Your task to perform on an android device: Open eBay Image 0: 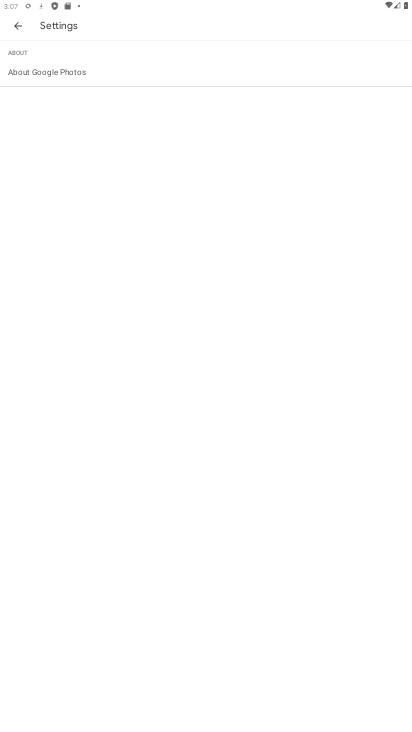
Step 0: press home button
Your task to perform on an android device: Open eBay Image 1: 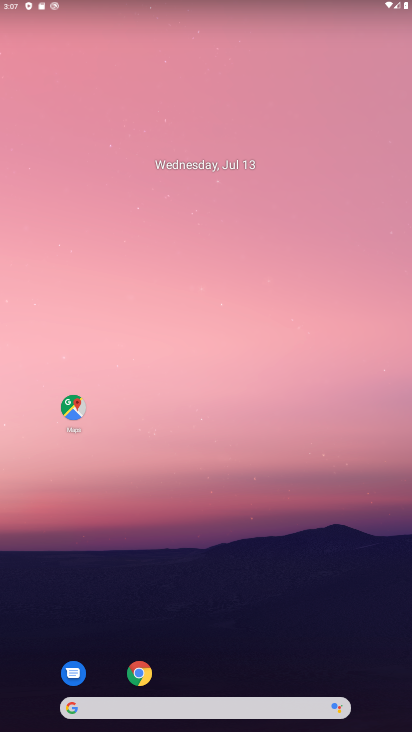
Step 1: drag from (221, 663) to (221, 188)
Your task to perform on an android device: Open eBay Image 2: 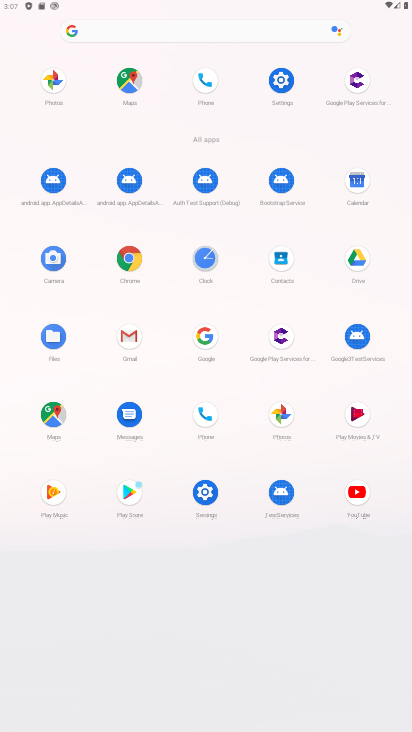
Step 2: click (131, 261)
Your task to perform on an android device: Open eBay Image 3: 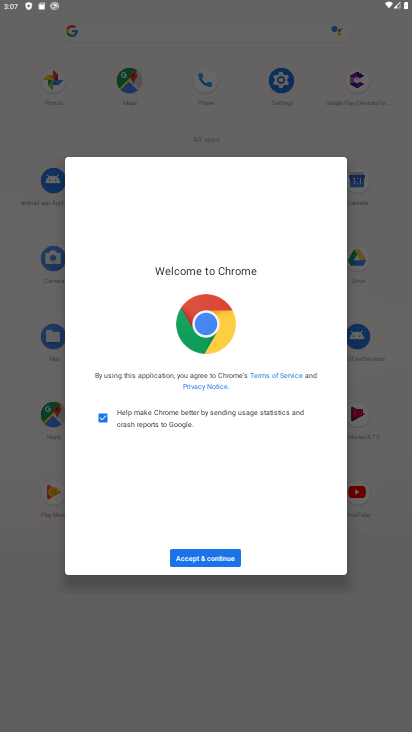
Step 3: click (205, 555)
Your task to perform on an android device: Open eBay Image 4: 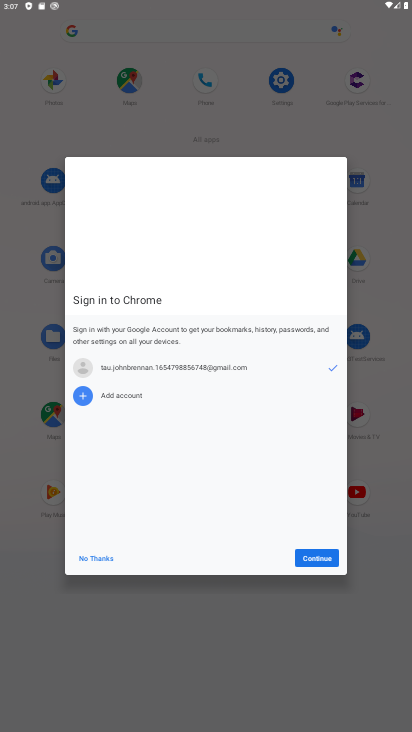
Step 4: click (309, 553)
Your task to perform on an android device: Open eBay Image 5: 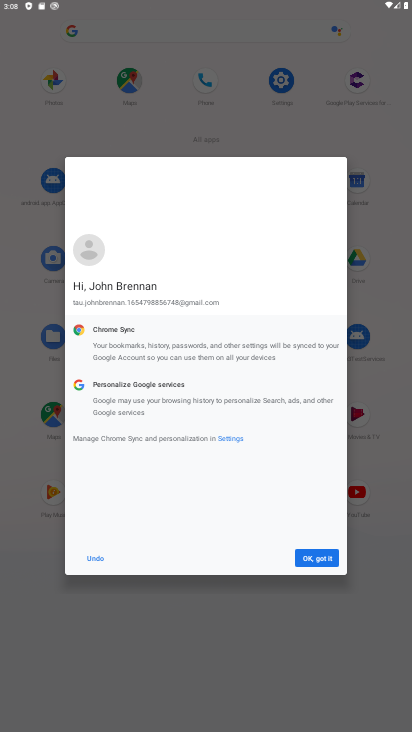
Step 5: click (309, 553)
Your task to perform on an android device: Open eBay Image 6: 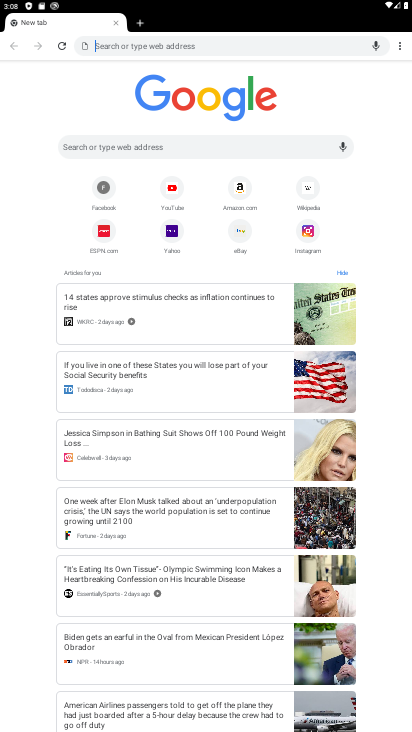
Step 6: click (242, 232)
Your task to perform on an android device: Open eBay Image 7: 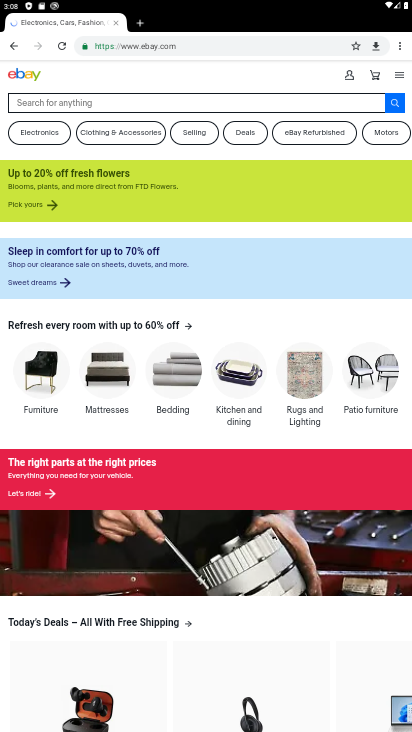
Step 7: task complete